Your task to perform on an android device: empty trash in the gmail app Image 0: 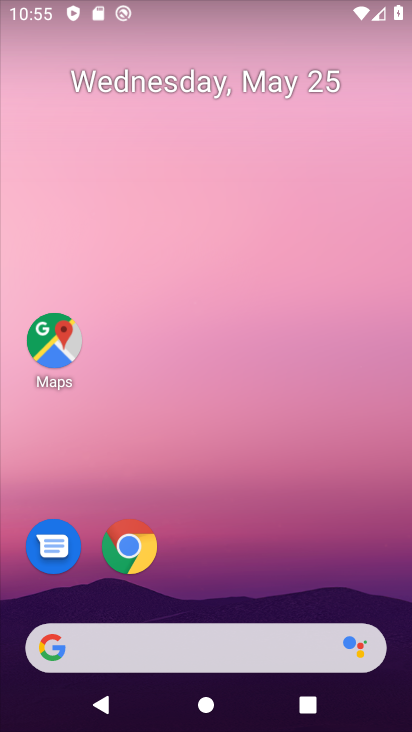
Step 0: drag from (319, 537) to (275, 185)
Your task to perform on an android device: empty trash in the gmail app Image 1: 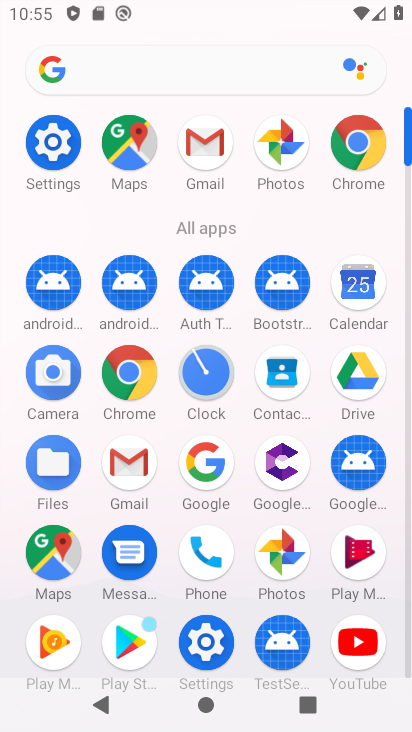
Step 1: click (150, 477)
Your task to perform on an android device: empty trash in the gmail app Image 2: 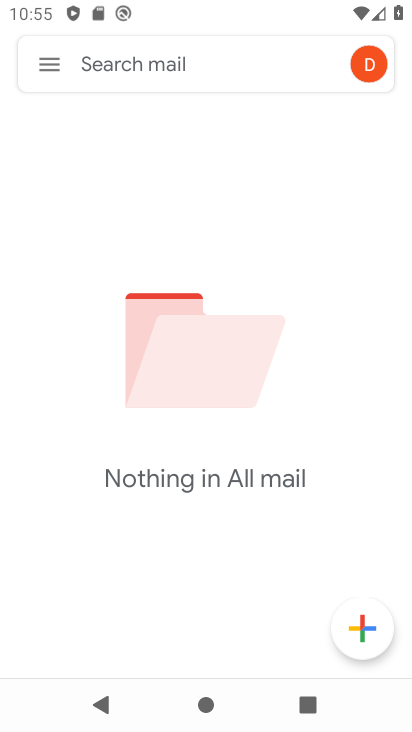
Step 2: click (41, 58)
Your task to perform on an android device: empty trash in the gmail app Image 3: 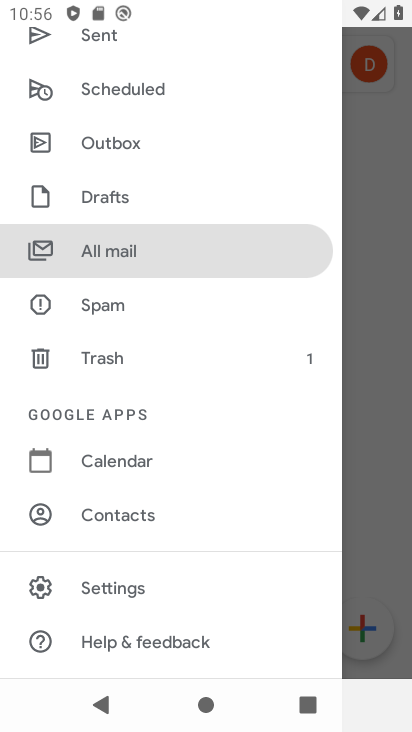
Step 3: click (173, 585)
Your task to perform on an android device: empty trash in the gmail app Image 4: 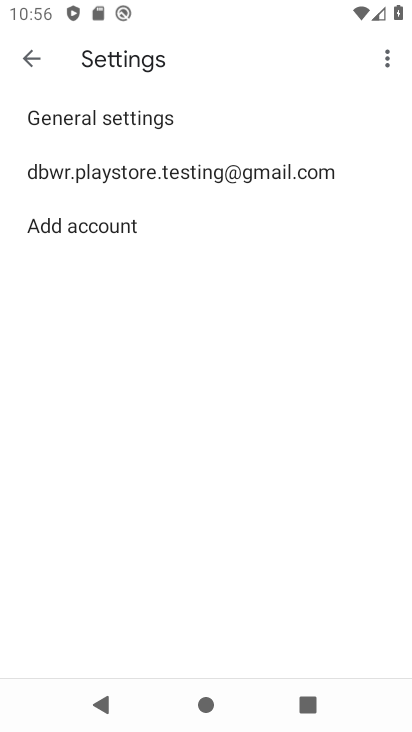
Step 4: click (182, 166)
Your task to perform on an android device: empty trash in the gmail app Image 5: 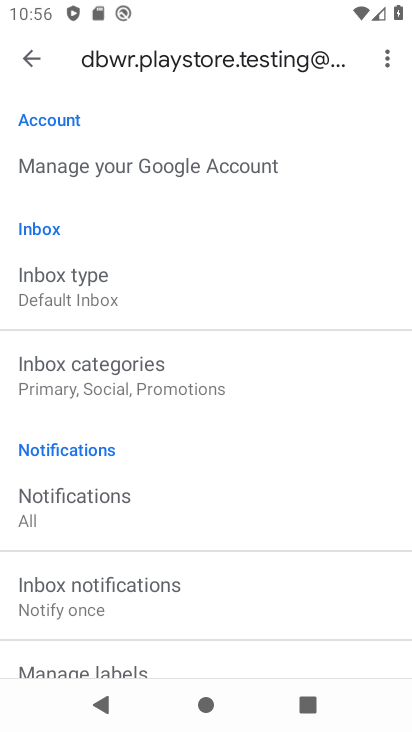
Step 5: click (39, 61)
Your task to perform on an android device: empty trash in the gmail app Image 6: 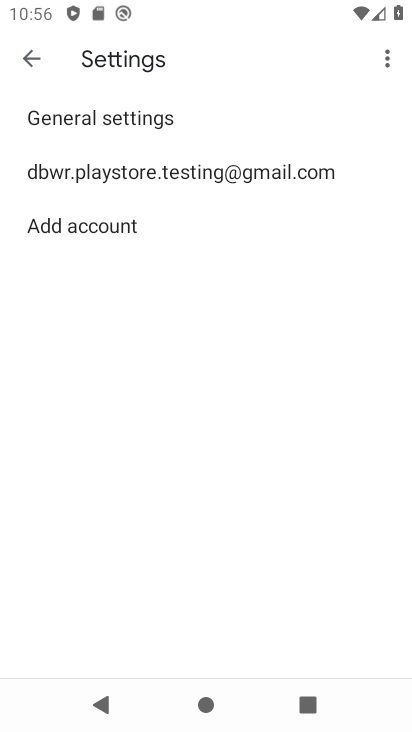
Step 6: click (39, 61)
Your task to perform on an android device: empty trash in the gmail app Image 7: 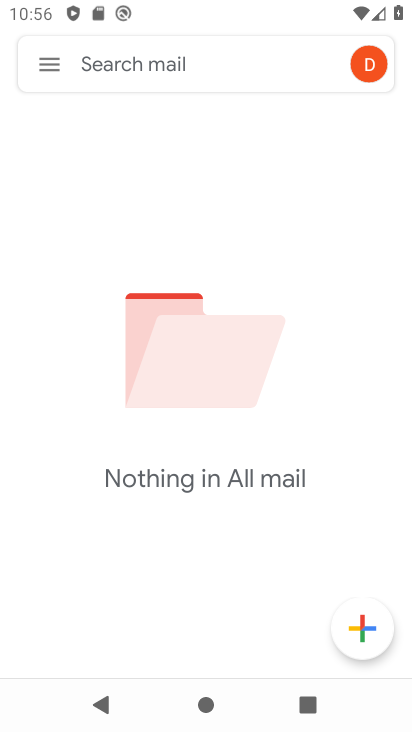
Step 7: click (39, 61)
Your task to perform on an android device: empty trash in the gmail app Image 8: 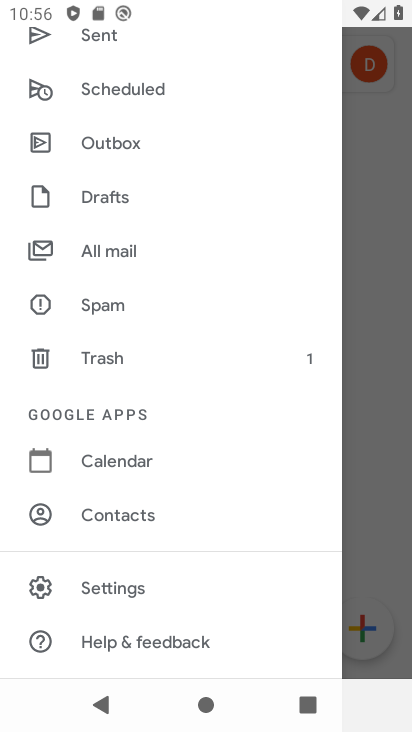
Step 8: click (127, 358)
Your task to perform on an android device: empty trash in the gmail app Image 9: 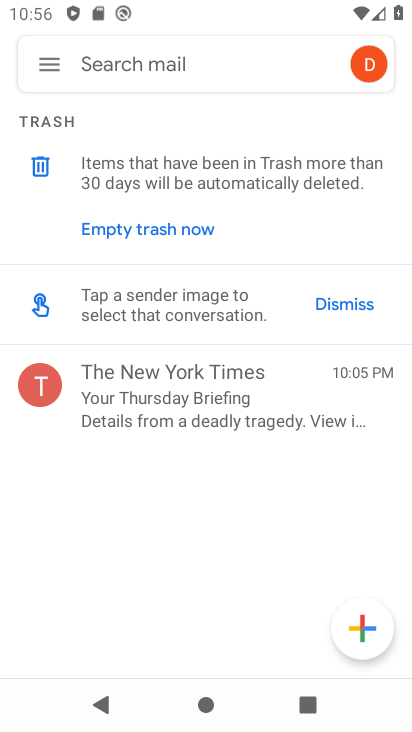
Step 9: click (235, 405)
Your task to perform on an android device: empty trash in the gmail app Image 10: 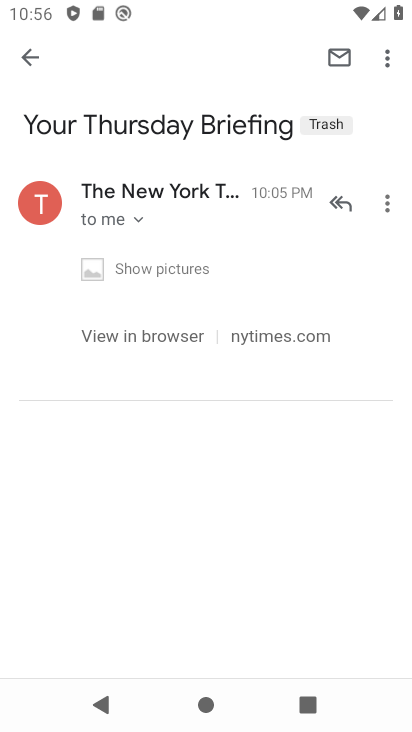
Step 10: click (39, 55)
Your task to perform on an android device: empty trash in the gmail app Image 11: 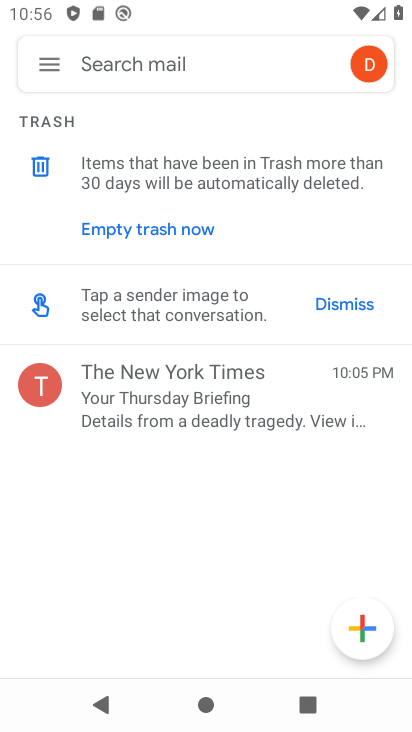
Step 11: click (118, 234)
Your task to perform on an android device: empty trash in the gmail app Image 12: 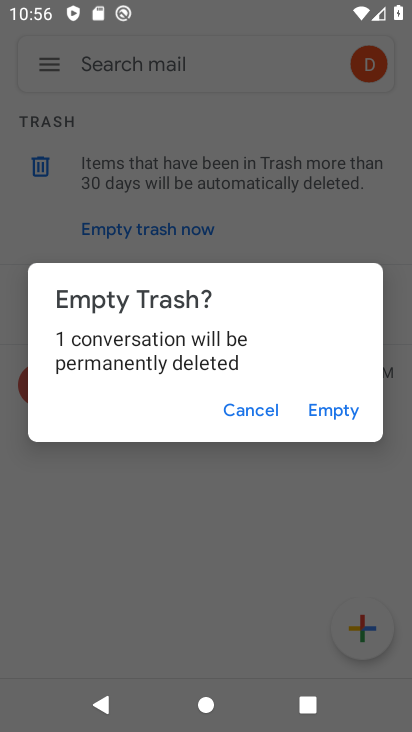
Step 12: click (341, 414)
Your task to perform on an android device: empty trash in the gmail app Image 13: 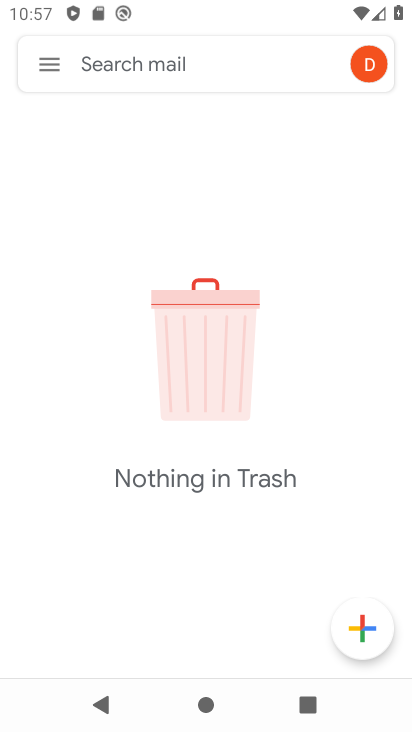
Step 13: task complete